Your task to perform on an android device: Open CNN.com Image 0: 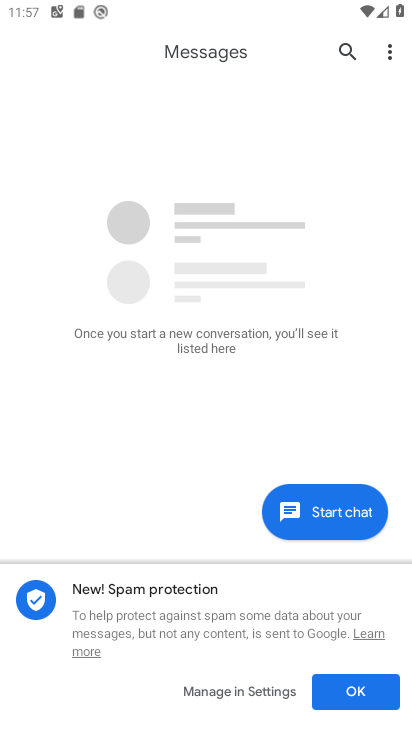
Step 0: press home button
Your task to perform on an android device: Open CNN.com Image 1: 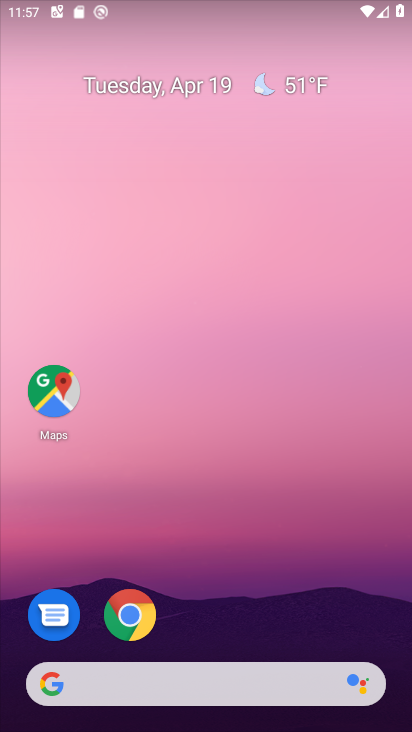
Step 1: click (145, 634)
Your task to perform on an android device: Open CNN.com Image 2: 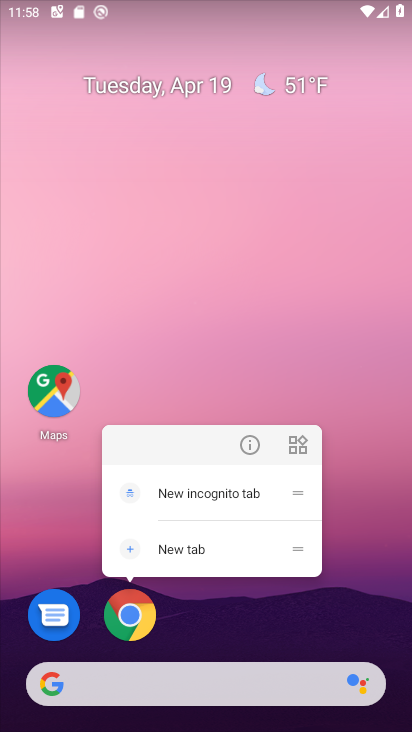
Step 2: click (133, 600)
Your task to perform on an android device: Open CNN.com Image 3: 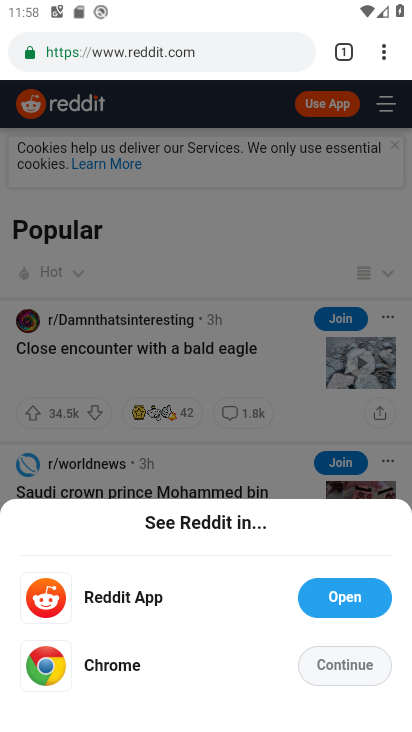
Step 3: click (199, 49)
Your task to perform on an android device: Open CNN.com Image 4: 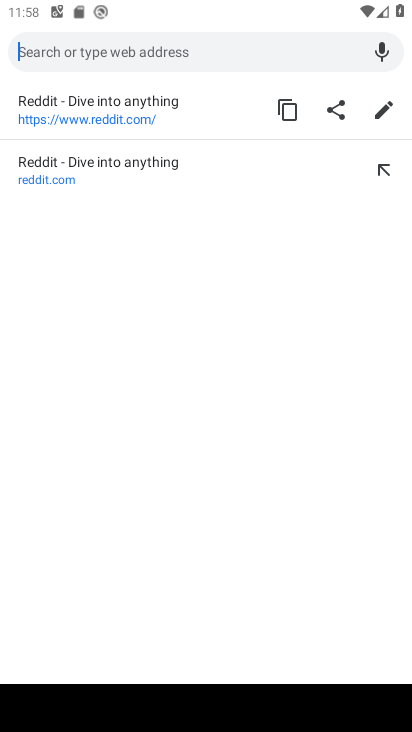
Step 4: type "cnn.com"
Your task to perform on an android device: Open CNN.com Image 5: 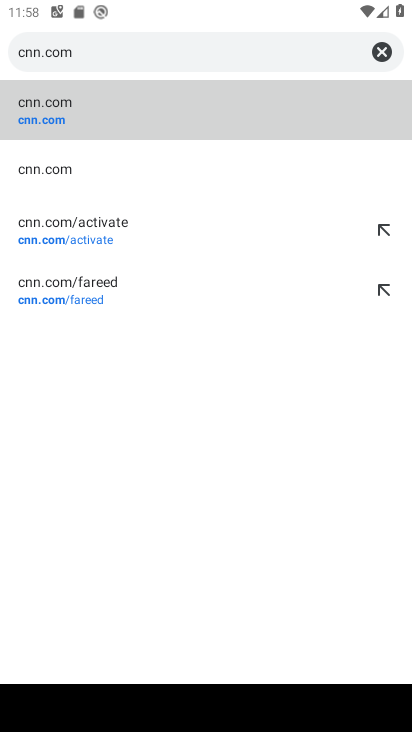
Step 5: click (130, 117)
Your task to perform on an android device: Open CNN.com Image 6: 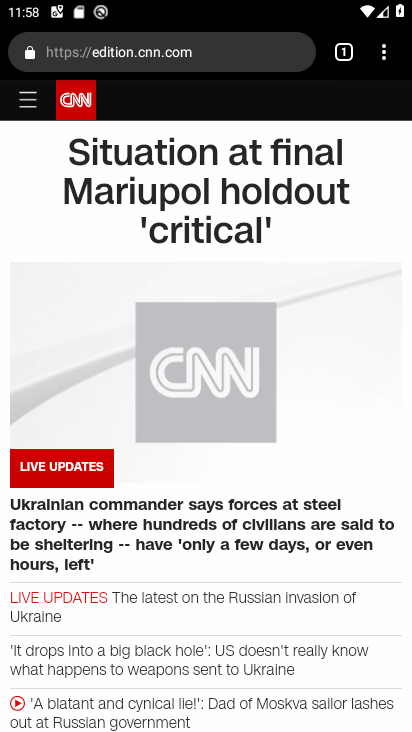
Step 6: task complete